Your task to perform on an android device: turn off data saver in the chrome app Image 0: 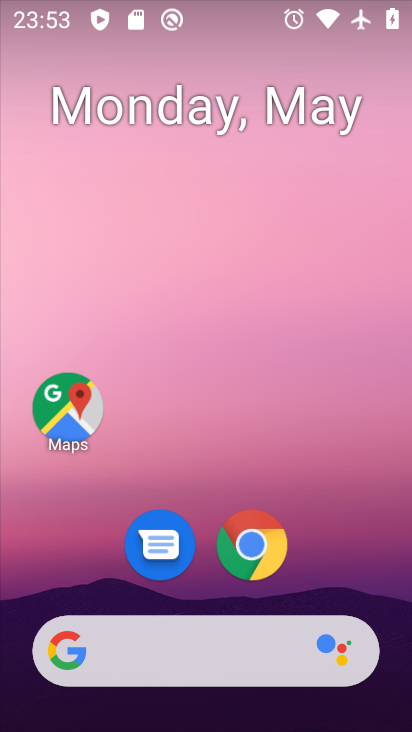
Step 0: click (248, 542)
Your task to perform on an android device: turn off data saver in the chrome app Image 1: 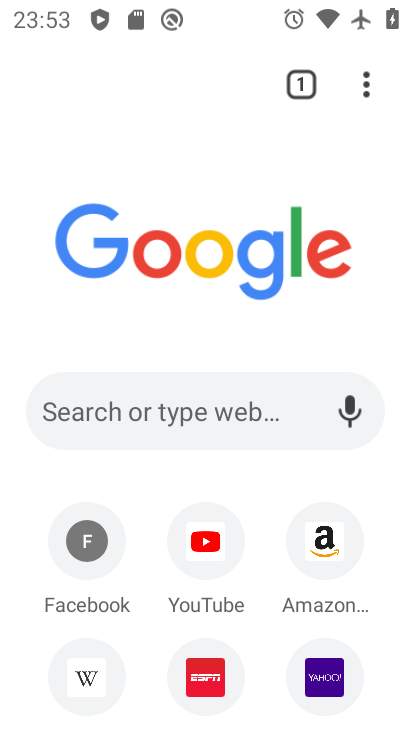
Step 1: click (368, 87)
Your task to perform on an android device: turn off data saver in the chrome app Image 2: 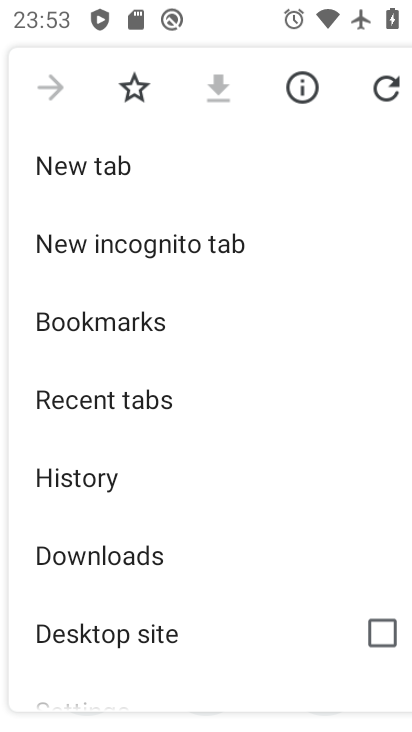
Step 2: drag from (240, 662) to (288, 343)
Your task to perform on an android device: turn off data saver in the chrome app Image 3: 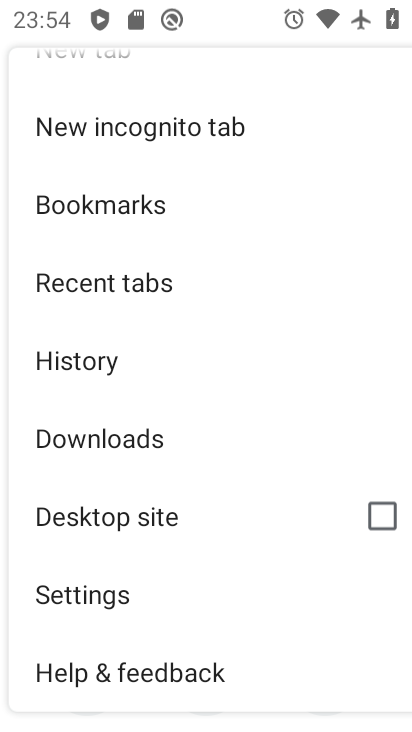
Step 3: click (176, 593)
Your task to perform on an android device: turn off data saver in the chrome app Image 4: 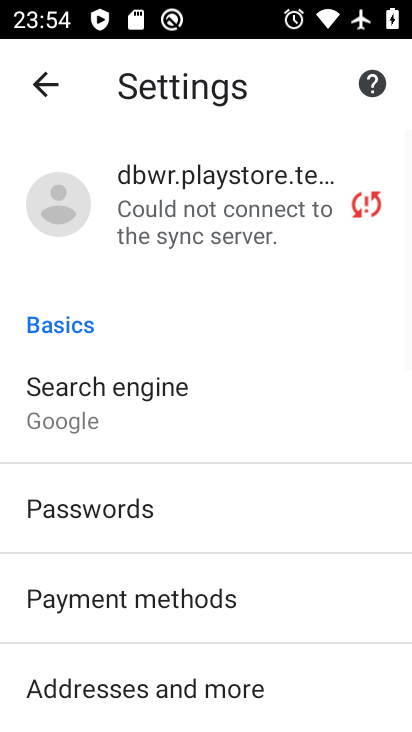
Step 4: drag from (165, 621) to (146, 341)
Your task to perform on an android device: turn off data saver in the chrome app Image 5: 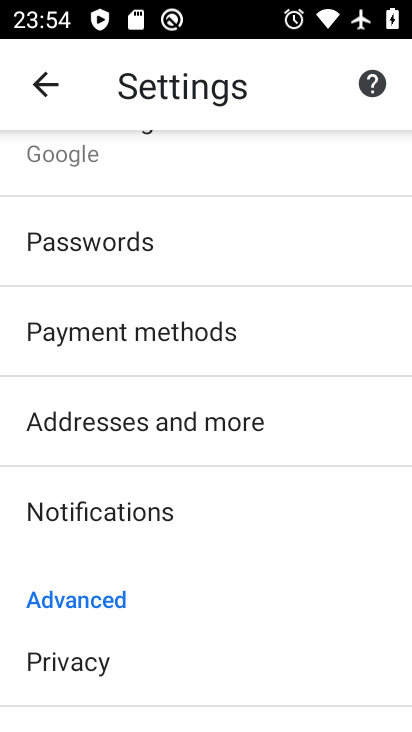
Step 5: drag from (126, 705) to (100, 471)
Your task to perform on an android device: turn off data saver in the chrome app Image 6: 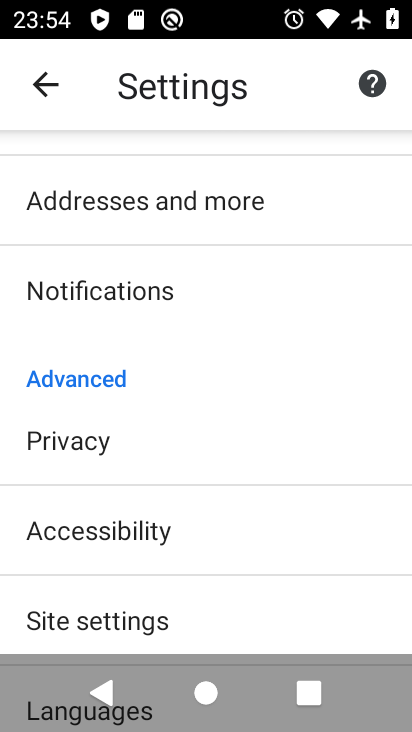
Step 6: drag from (112, 628) to (121, 423)
Your task to perform on an android device: turn off data saver in the chrome app Image 7: 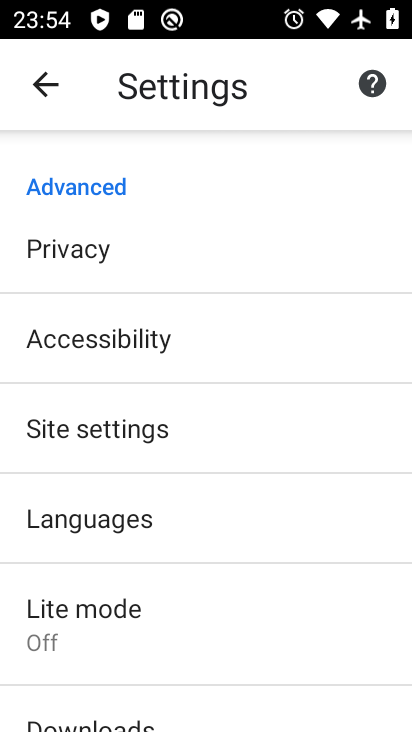
Step 7: click (87, 617)
Your task to perform on an android device: turn off data saver in the chrome app Image 8: 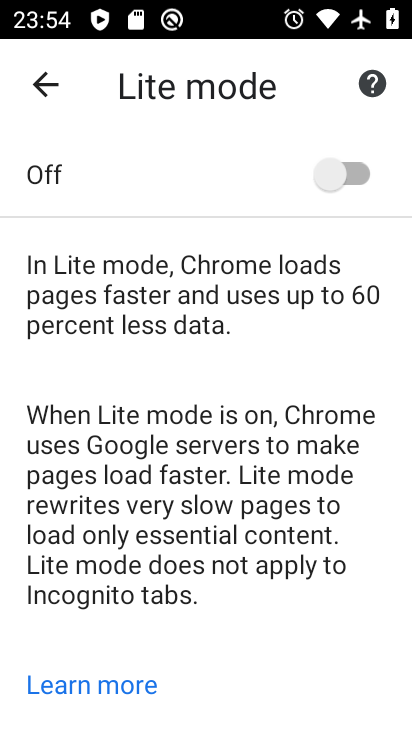
Step 8: task complete